Your task to perform on an android device: Go to internet settings Image 0: 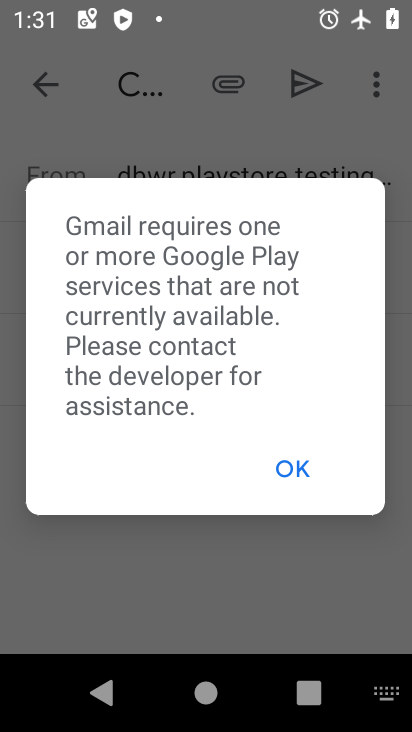
Step 0: click (293, 471)
Your task to perform on an android device: Go to internet settings Image 1: 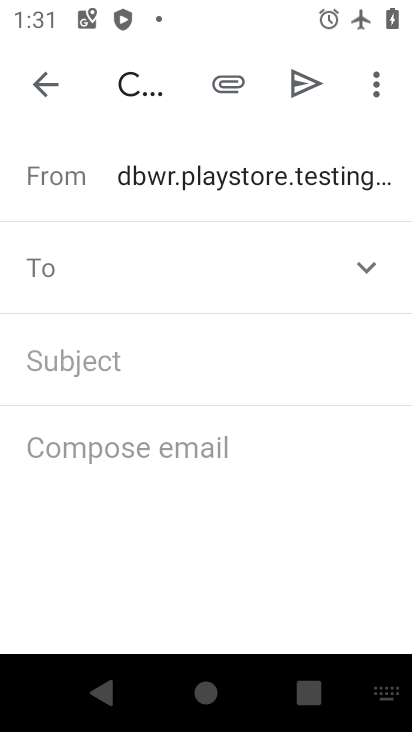
Step 1: press home button
Your task to perform on an android device: Go to internet settings Image 2: 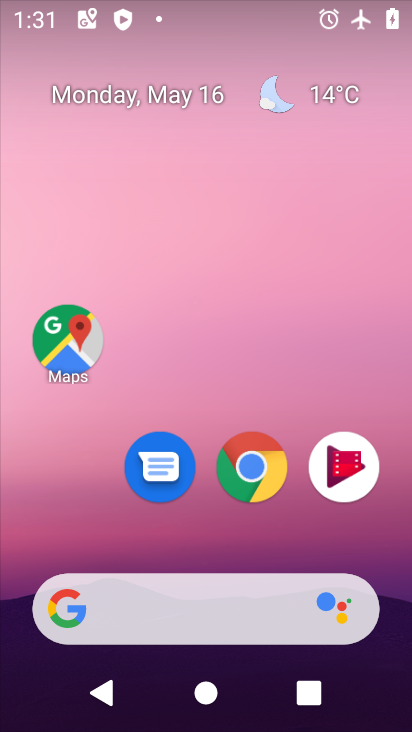
Step 2: drag from (288, 532) to (306, 256)
Your task to perform on an android device: Go to internet settings Image 3: 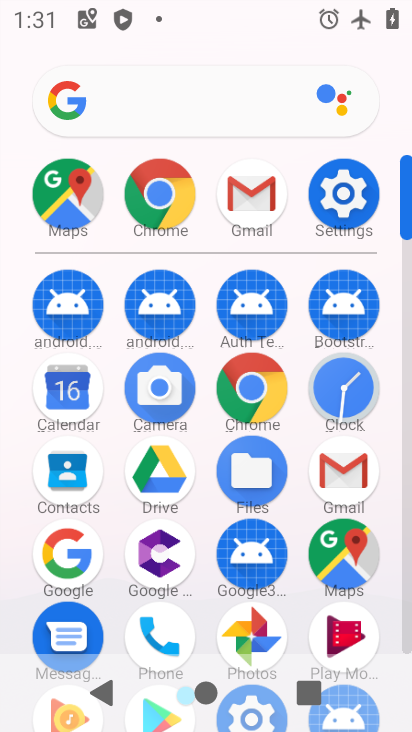
Step 3: click (341, 187)
Your task to perform on an android device: Go to internet settings Image 4: 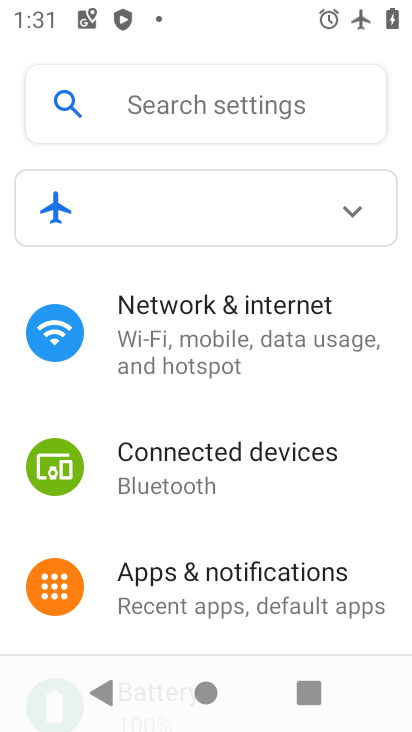
Step 4: click (182, 329)
Your task to perform on an android device: Go to internet settings Image 5: 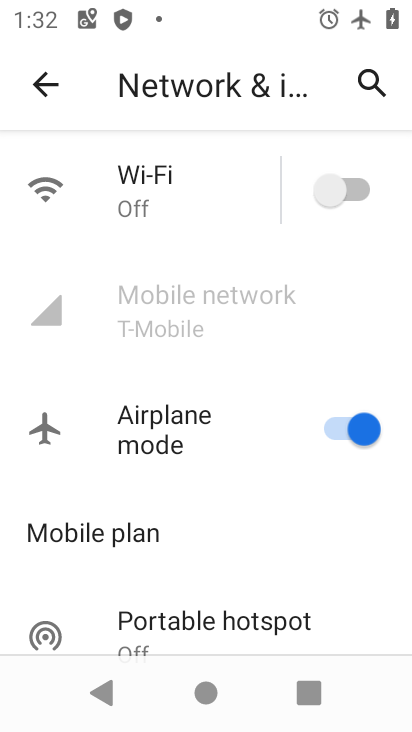
Step 5: task complete